Your task to perform on an android device: turn off notifications in google photos Image 0: 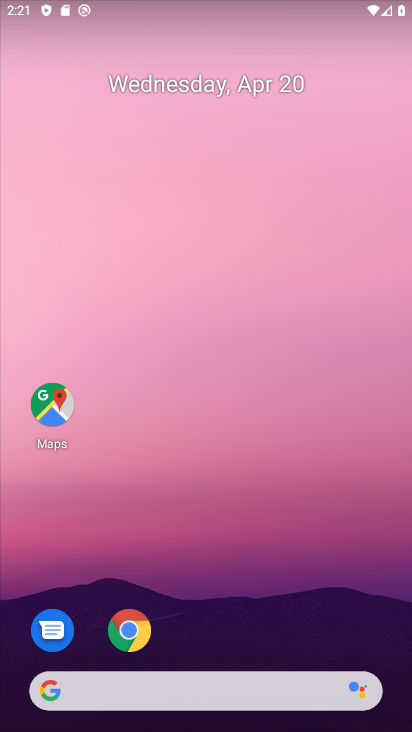
Step 0: drag from (155, 483) to (64, 107)
Your task to perform on an android device: turn off notifications in google photos Image 1: 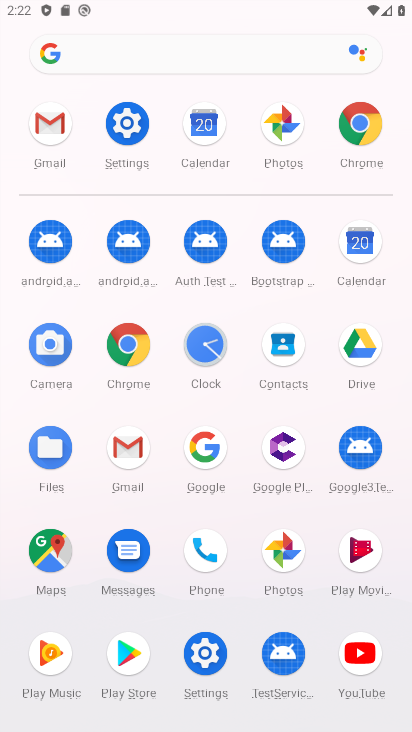
Step 1: click (275, 554)
Your task to perform on an android device: turn off notifications in google photos Image 2: 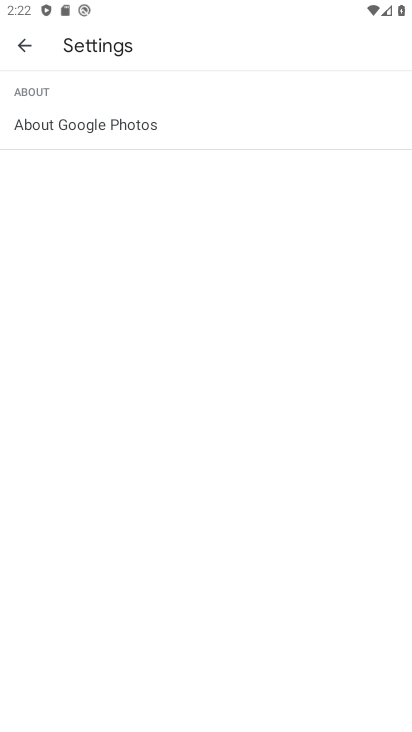
Step 2: click (20, 46)
Your task to perform on an android device: turn off notifications in google photos Image 3: 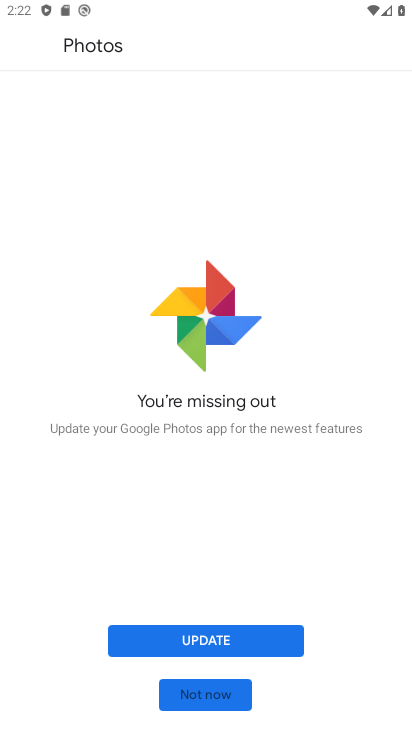
Step 3: click (202, 702)
Your task to perform on an android device: turn off notifications in google photos Image 4: 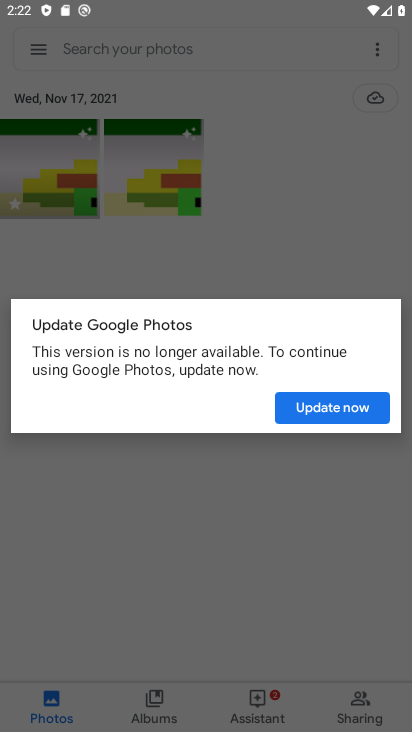
Step 4: click (350, 405)
Your task to perform on an android device: turn off notifications in google photos Image 5: 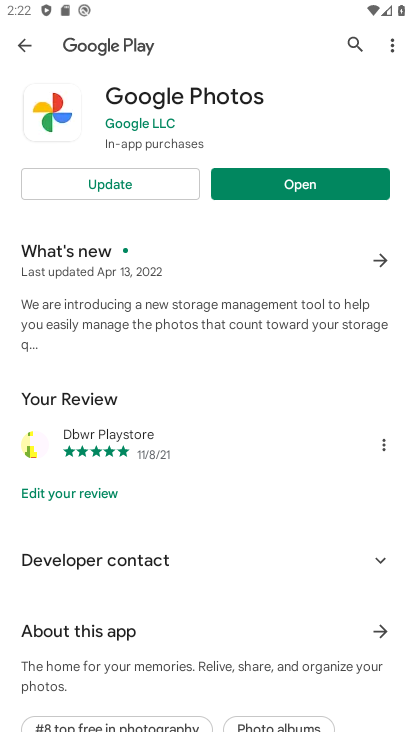
Step 5: press back button
Your task to perform on an android device: turn off notifications in google photos Image 6: 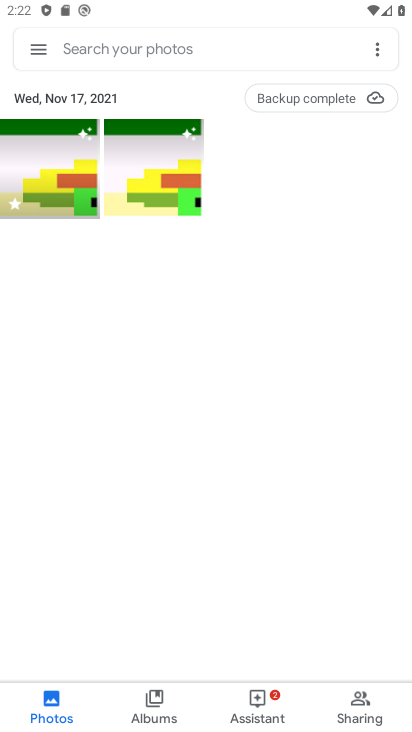
Step 6: click (38, 55)
Your task to perform on an android device: turn off notifications in google photos Image 7: 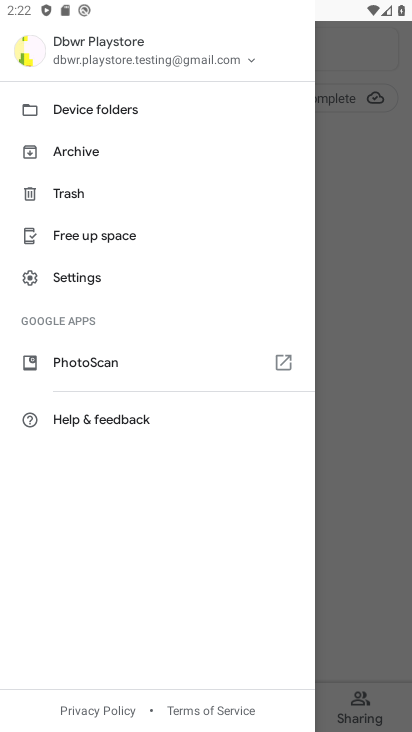
Step 7: click (78, 279)
Your task to perform on an android device: turn off notifications in google photos Image 8: 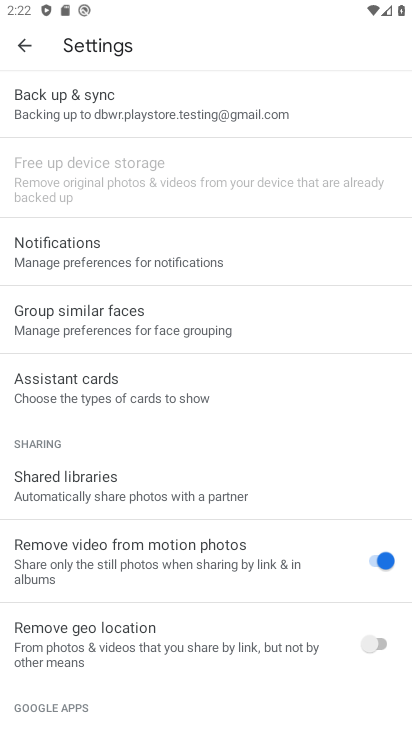
Step 8: click (72, 256)
Your task to perform on an android device: turn off notifications in google photos Image 9: 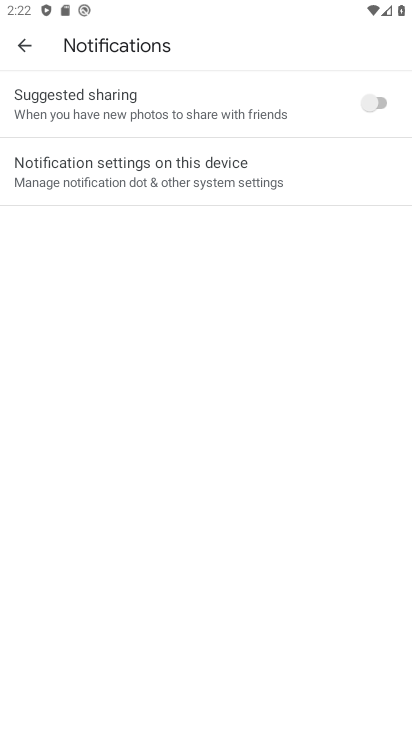
Step 9: click (198, 166)
Your task to perform on an android device: turn off notifications in google photos Image 10: 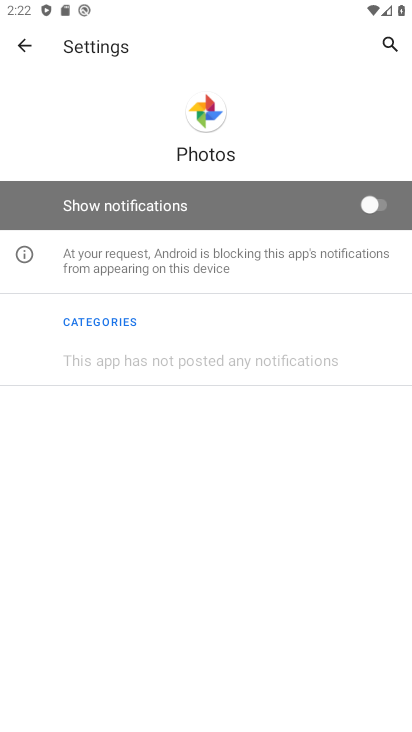
Step 10: task complete